Your task to perform on an android device: Go to CNN.com Image 0: 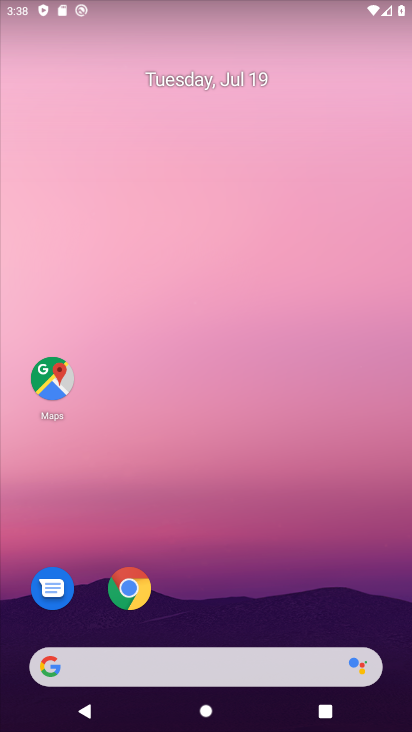
Step 0: drag from (284, 620) to (272, 115)
Your task to perform on an android device: Go to CNN.com Image 1: 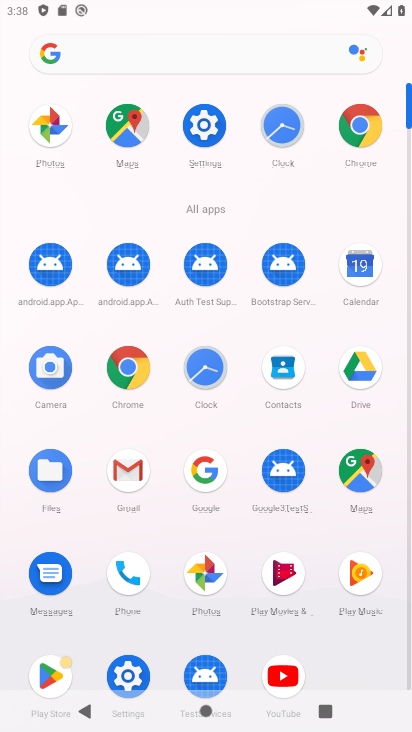
Step 1: click (362, 125)
Your task to perform on an android device: Go to CNN.com Image 2: 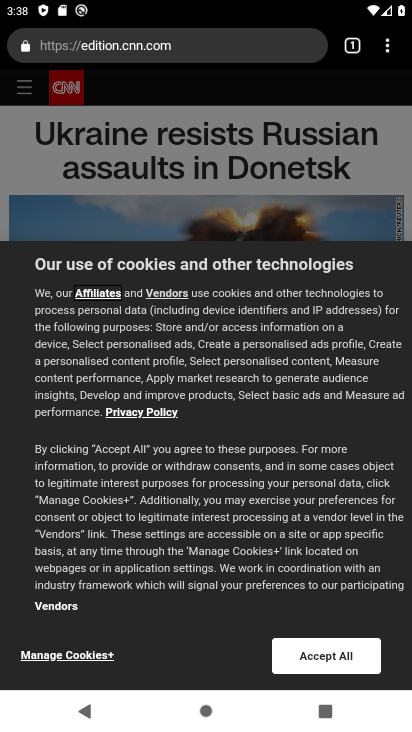
Step 2: task complete